Your task to perform on an android device: Open internet settings Image 0: 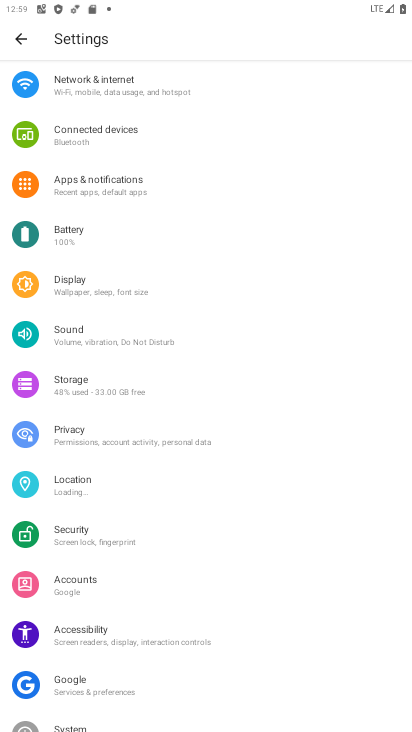
Step 0: drag from (280, 496) to (284, 368)
Your task to perform on an android device: Open internet settings Image 1: 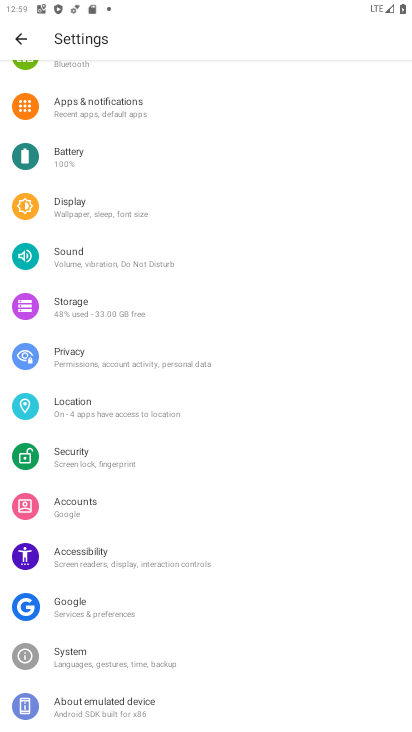
Step 1: drag from (314, 486) to (313, 356)
Your task to perform on an android device: Open internet settings Image 2: 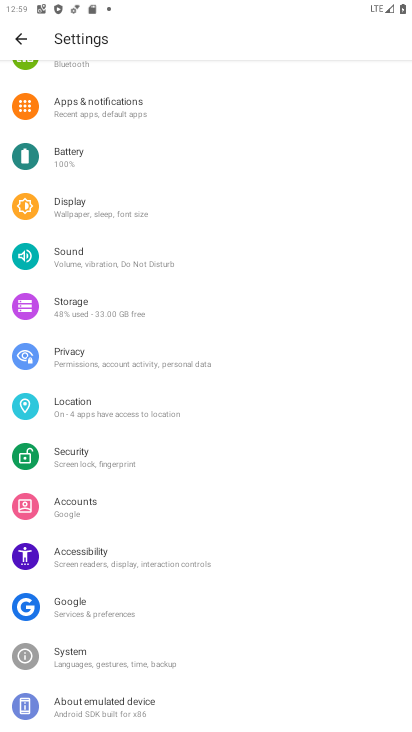
Step 2: drag from (253, 148) to (253, 223)
Your task to perform on an android device: Open internet settings Image 3: 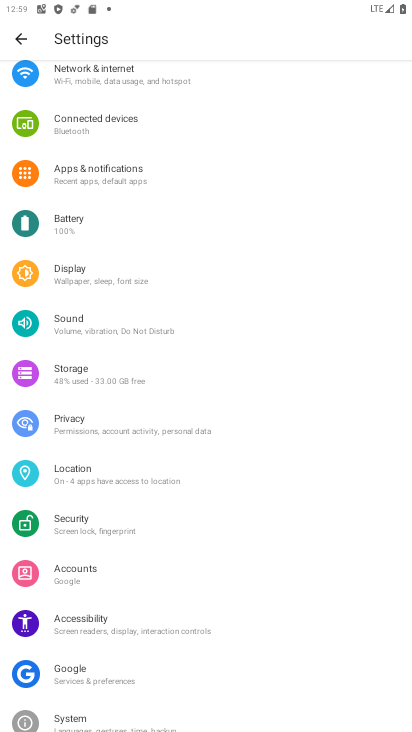
Step 3: drag from (251, 148) to (258, 230)
Your task to perform on an android device: Open internet settings Image 4: 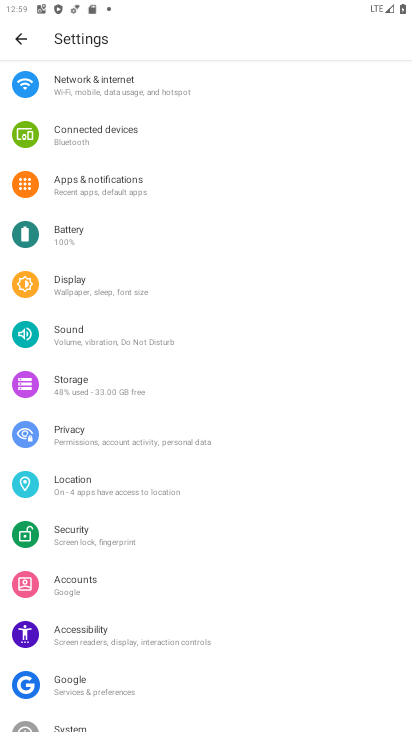
Step 4: click (190, 106)
Your task to perform on an android device: Open internet settings Image 5: 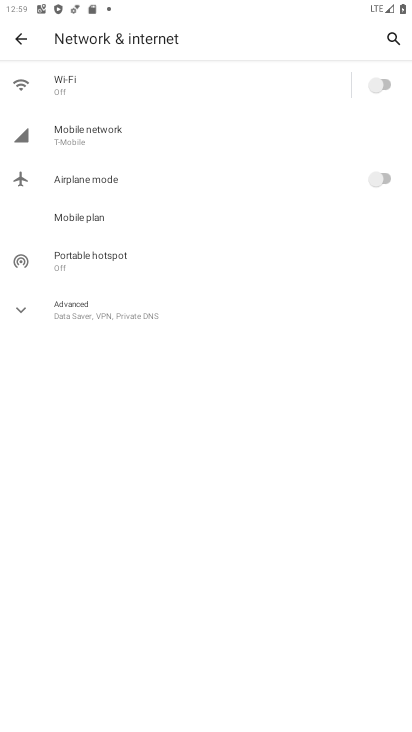
Step 5: click (138, 314)
Your task to perform on an android device: Open internet settings Image 6: 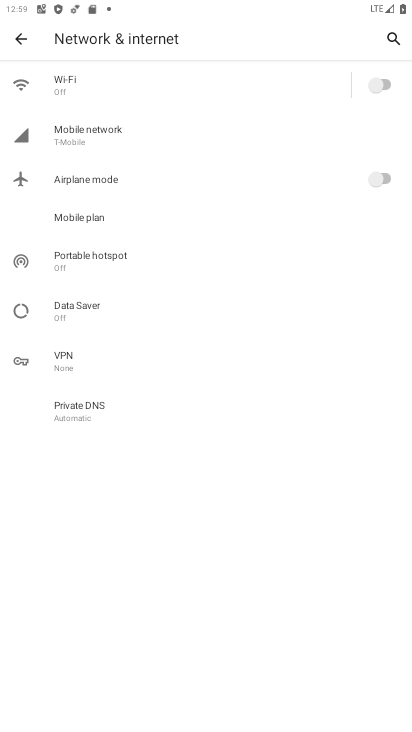
Step 6: task complete